Your task to perform on an android device: delete location history Image 0: 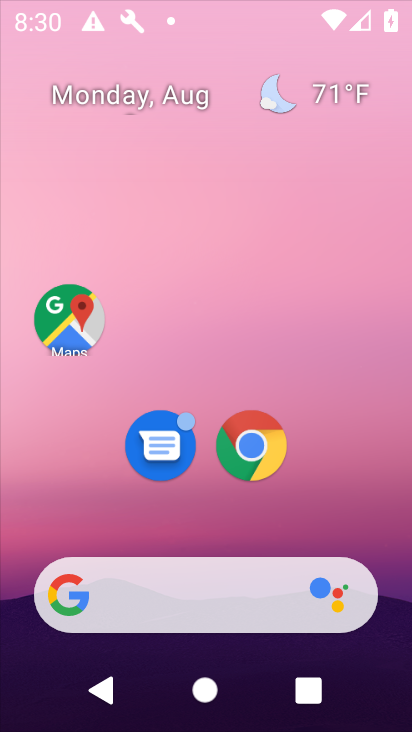
Step 0: drag from (208, 559) to (359, 29)
Your task to perform on an android device: delete location history Image 1: 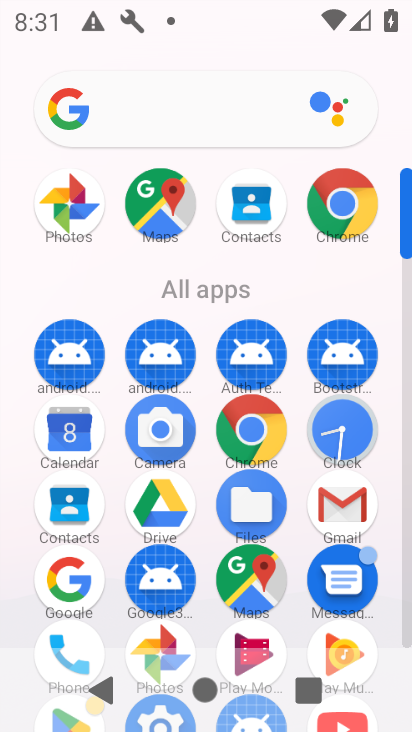
Step 1: click (271, 555)
Your task to perform on an android device: delete location history Image 2: 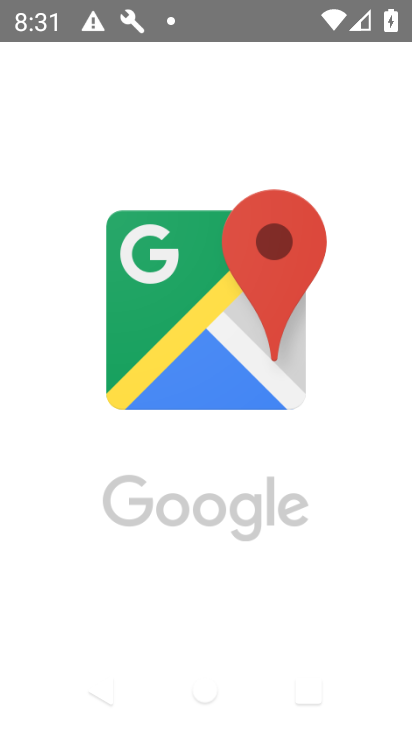
Step 2: press back button
Your task to perform on an android device: delete location history Image 3: 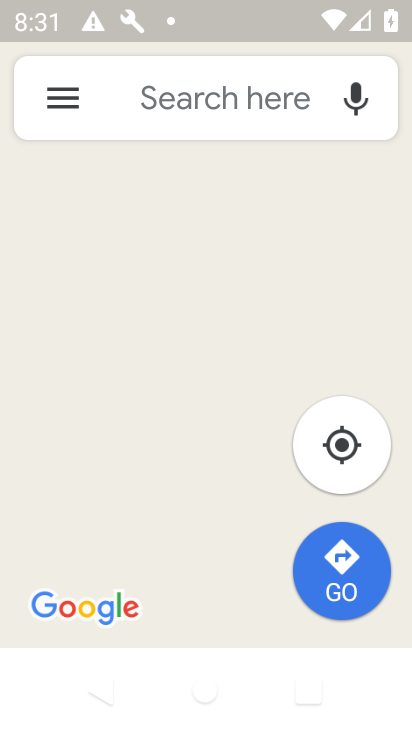
Step 3: press back button
Your task to perform on an android device: delete location history Image 4: 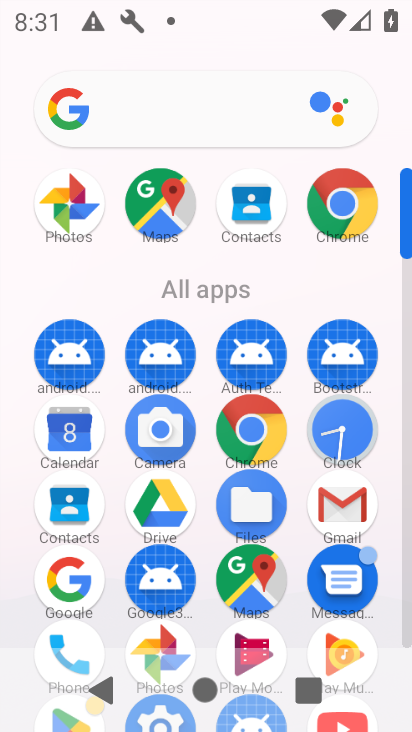
Step 4: press back button
Your task to perform on an android device: delete location history Image 5: 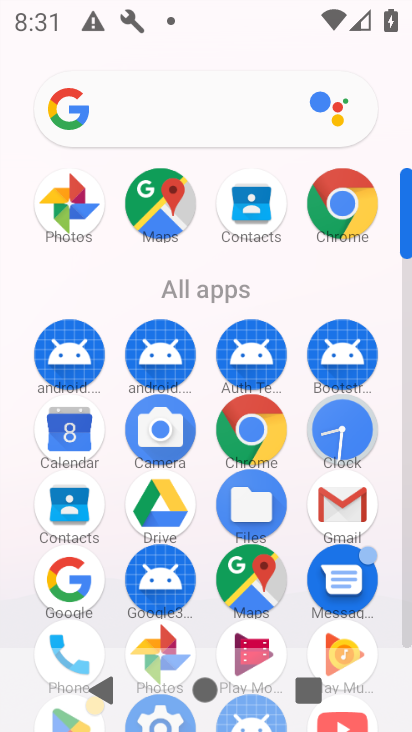
Step 5: click (56, 103)
Your task to perform on an android device: delete location history Image 6: 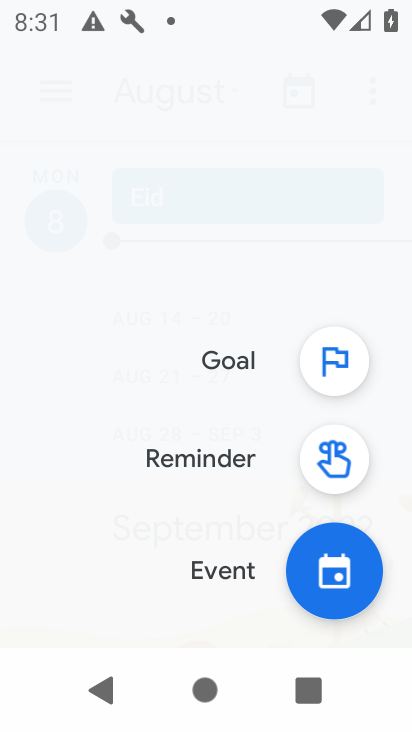
Step 6: drag from (219, 556) to (141, 225)
Your task to perform on an android device: delete location history Image 7: 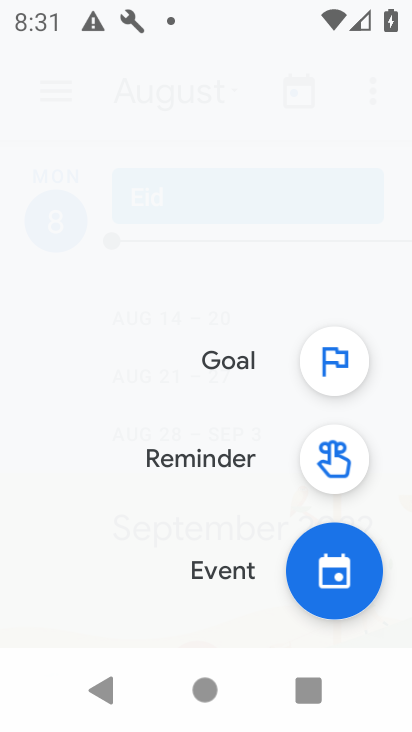
Step 7: press back button
Your task to perform on an android device: delete location history Image 8: 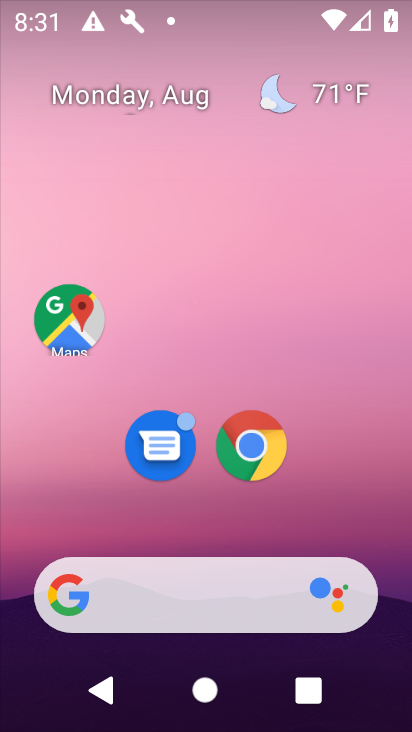
Step 8: drag from (263, 579) to (216, 103)
Your task to perform on an android device: delete location history Image 9: 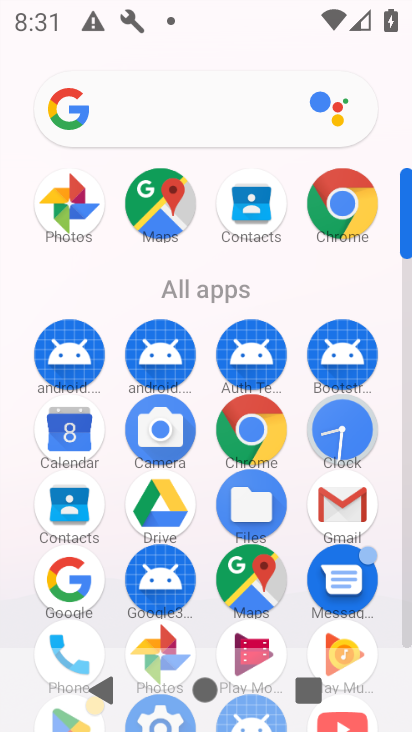
Step 9: drag from (296, 437) to (282, 253)
Your task to perform on an android device: delete location history Image 10: 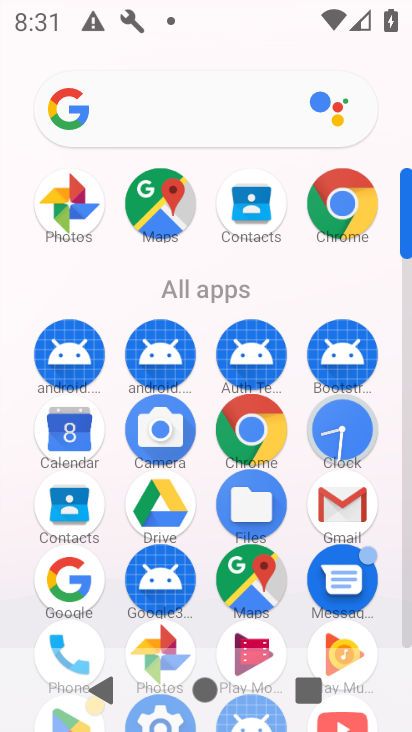
Step 10: drag from (314, 546) to (298, 214)
Your task to perform on an android device: delete location history Image 11: 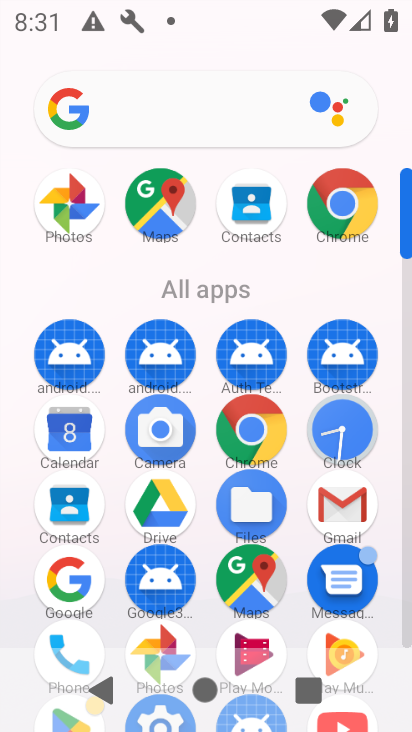
Step 11: drag from (298, 208) to (285, 154)
Your task to perform on an android device: delete location history Image 12: 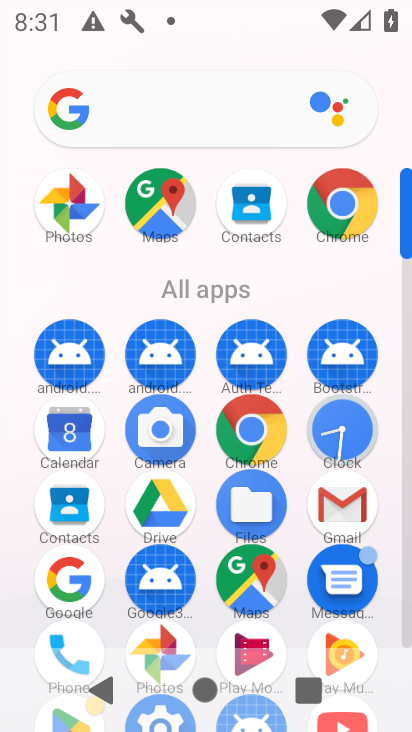
Step 12: drag from (219, 414) to (212, 165)
Your task to perform on an android device: delete location history Image 13: 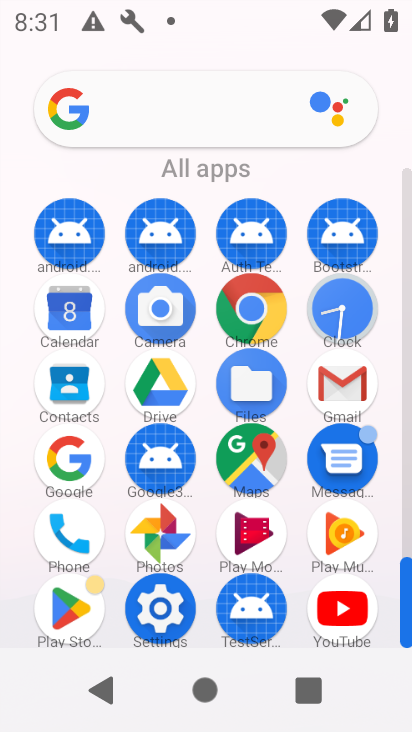
Step 13: click (158, 607)
Your task to perform on an android device: delete location history Image 14: 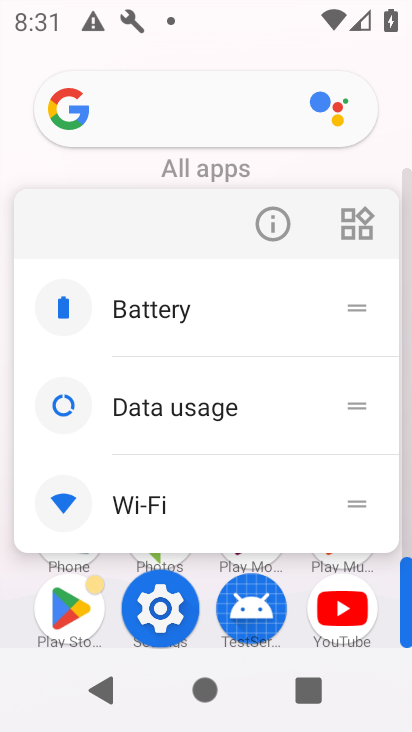
Step 14: click (159, 611)
Your task to perform on an android device: delete location history Image 15: 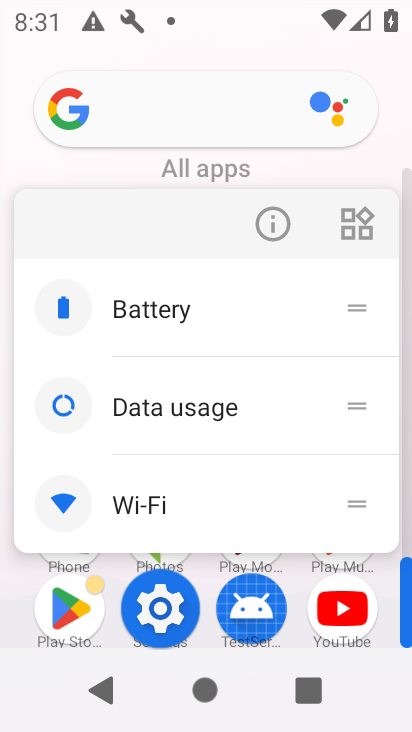
Step 15: click (159, 611)
Your task to perform on an android device: delete location history Image 16: 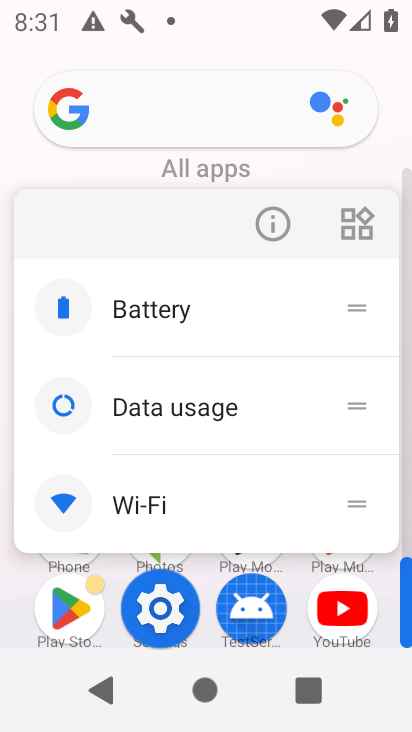
Step 16: click (166, 615)
Your task to perform on an android device: delete location history Image 17: 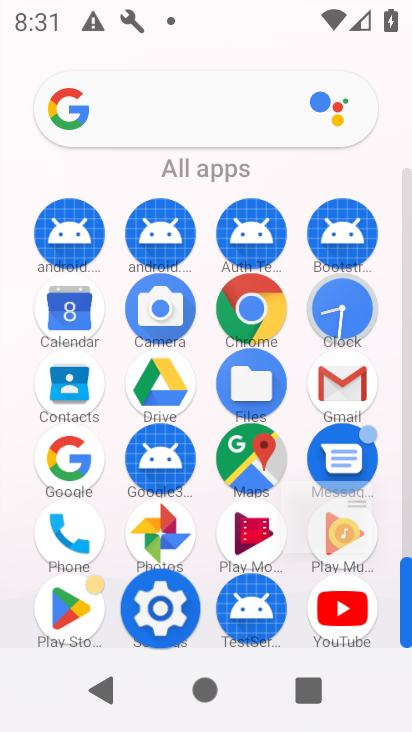
Step 17: click (166, 616)
Your task to perform on an android device: delete location history Image 18: 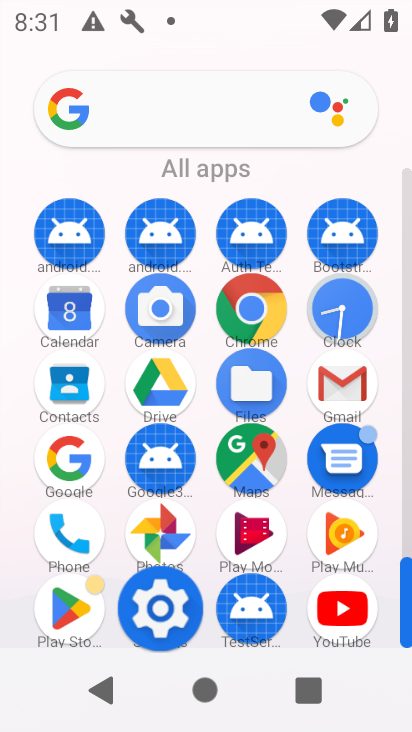
Step 18: click (168, 617)
Your task to perform on an android device: delete location history Image 19: 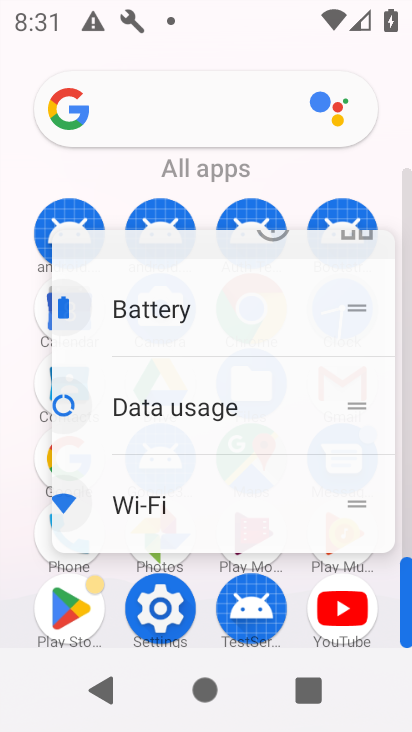
Step 19: click (171, 615)
Your task to perform on an android device: delete location history Image 20: 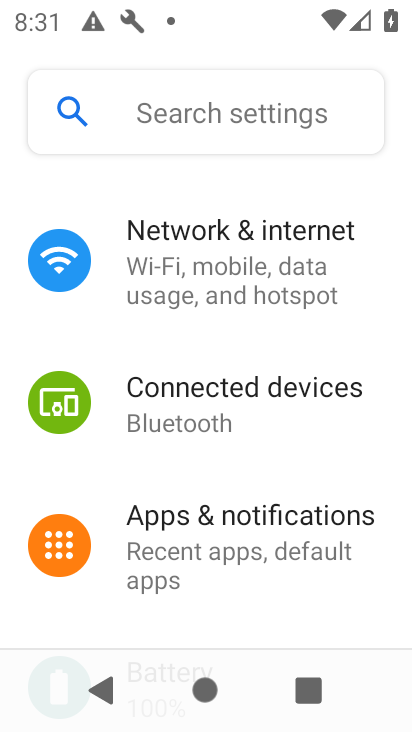
Step 20: click (171, 607)
Your task to perform on an android device: delete location history Image 21: 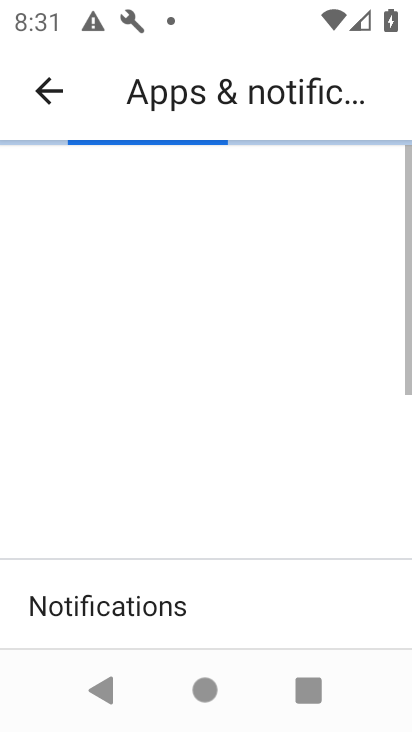
Step 21: drag from (174, 525) to (140, 275)
Your task to perform on an android device: delete location history Image 22: 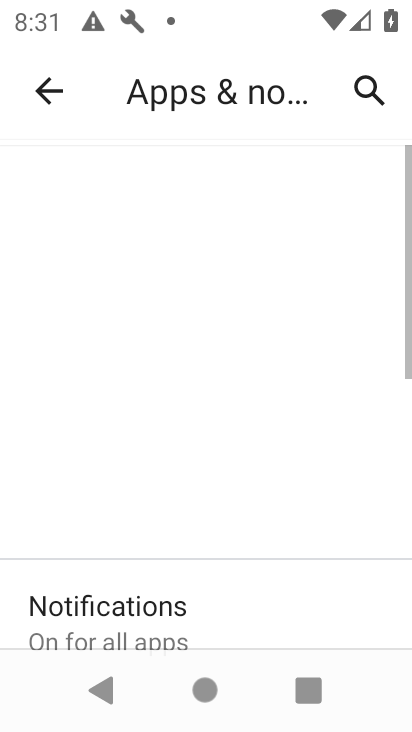
Step 22: click (51, 88)
Your task to perform on an android device: delete location history Image 23: 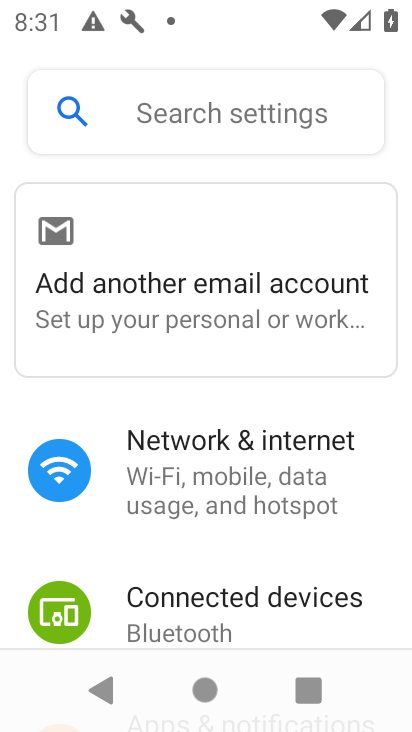
Step 23: drag from (234, 604) to (211, 409)
Your task to perform on an android device: delete location history Image 24: 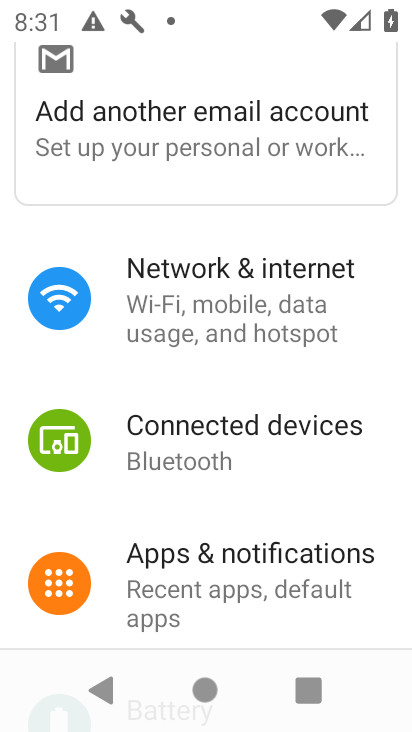
Step 24: click (225, 438)
Your task to perform on an android device: delete location history Image 25: 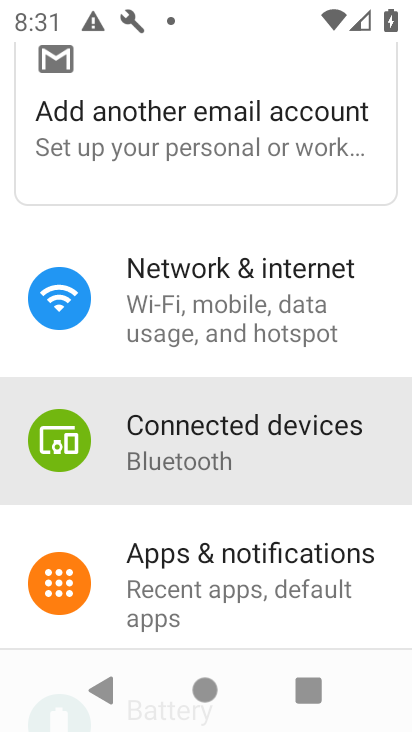
Step 25: drag from (265, 559) to (253, 260)
Your task to perform on an android device: delete location history Image 26: 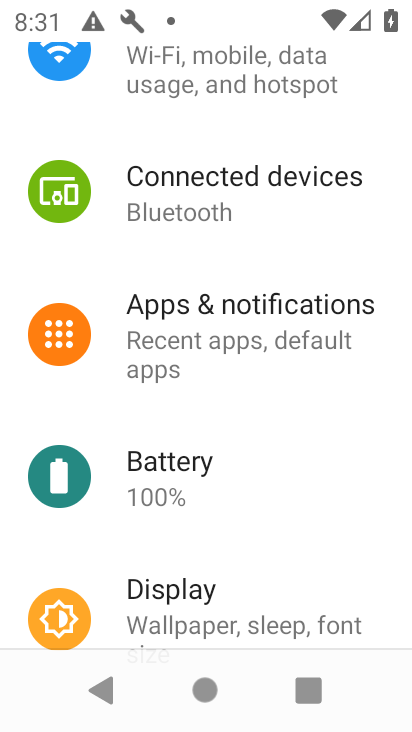
Step 26: click (169, 612)
Your task to perform on an android device: delete location history Image 27: 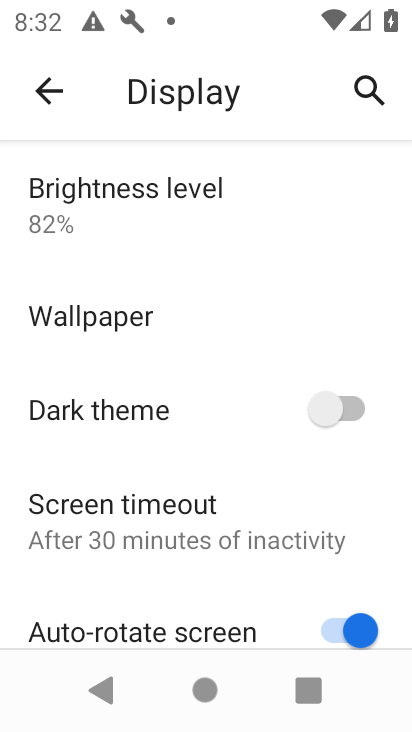
Step 27: drag from (161, 530) to (124, 172)
Your task to perform on an android device: delete location history Image 28: 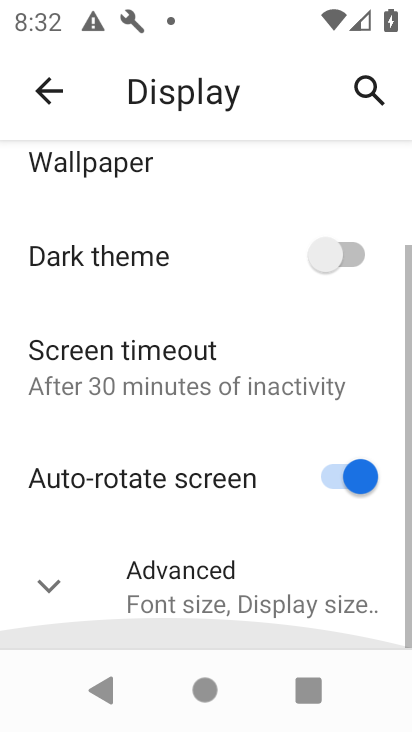
Step 28: drag from (190, 473) to (192, 291)
Your task to perform on an android device: delete location history Image 29: 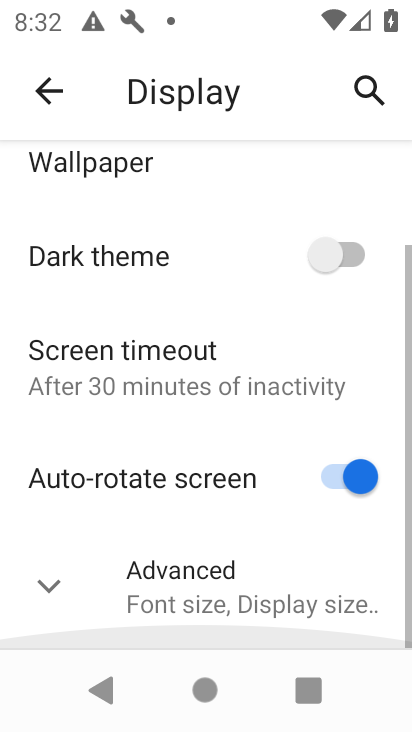
Step 29: drag from (221, 471) to (188, 224)
Your task to perform on an android device: delete location history Image 30: 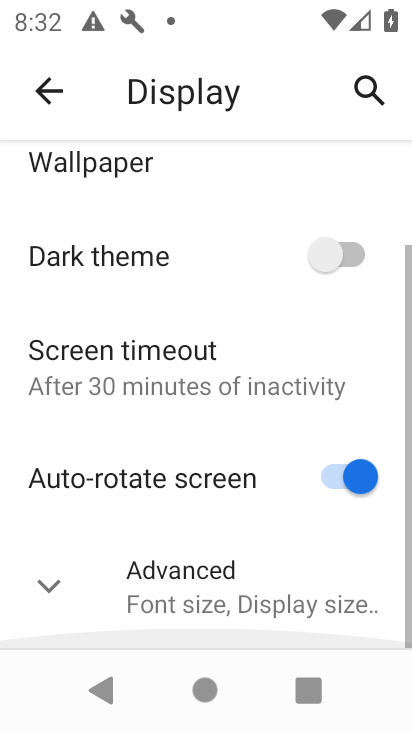
Step 30: click (199, 575)
Your task to perform on an android device: delete location history Image 31: 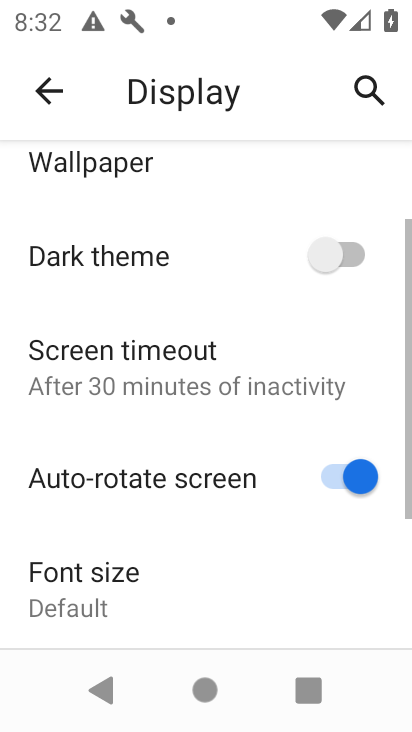
Step 31: drag from (197, 565) to (141, 249)
Your task to perform on an android device: delete location history Image 32: 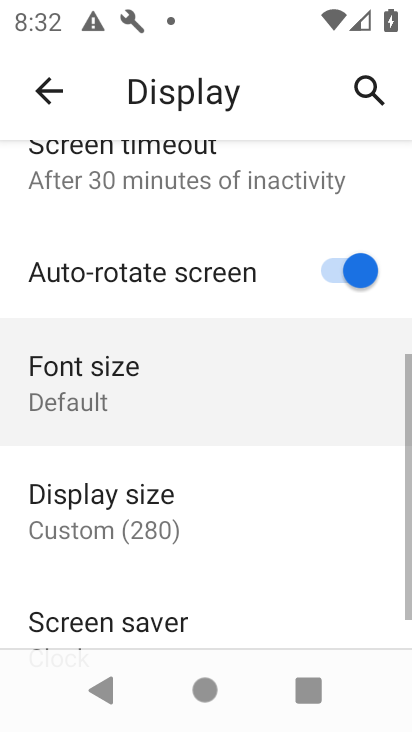
Step 32: drag from (197, 456) to (197, 315)
Your task to perform on an android device: delete location history Image 33: 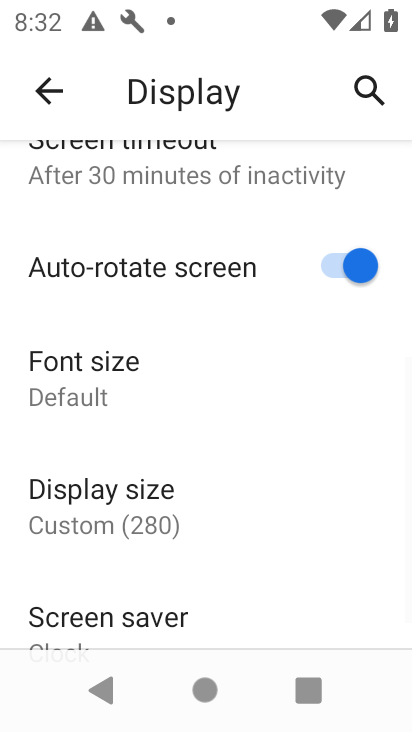
Step 33: click (79, 376)
Your task to perform on an android device: delete location history Image 34: 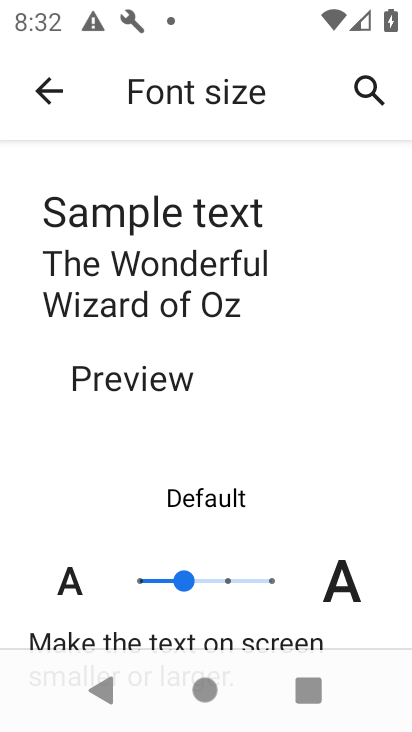
Step 34: click (134, 579)
Your task to perform on an android device: delete location history Image 35: 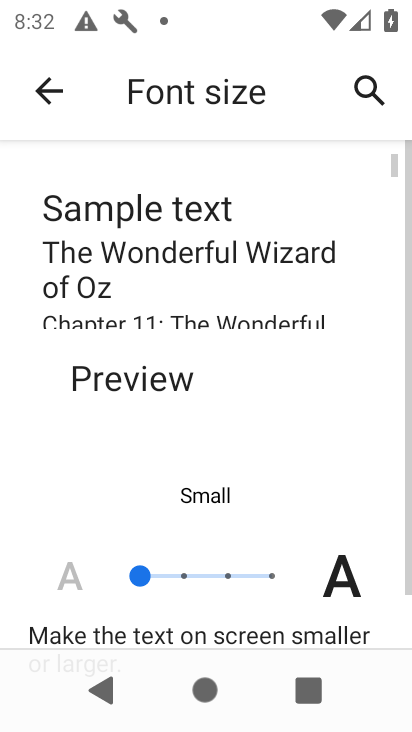
Step 35: click (48, 89)
Your task to perform on an android device: delete location history Image 36: 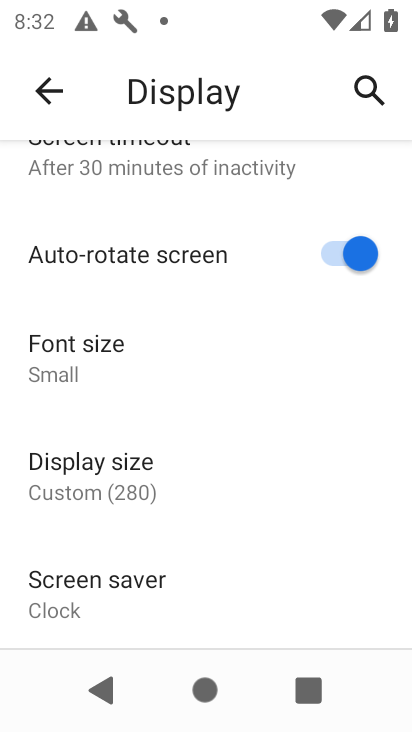
Step 36: click (44, 94)
Your task to perform on an android device: delete location history Image 37: 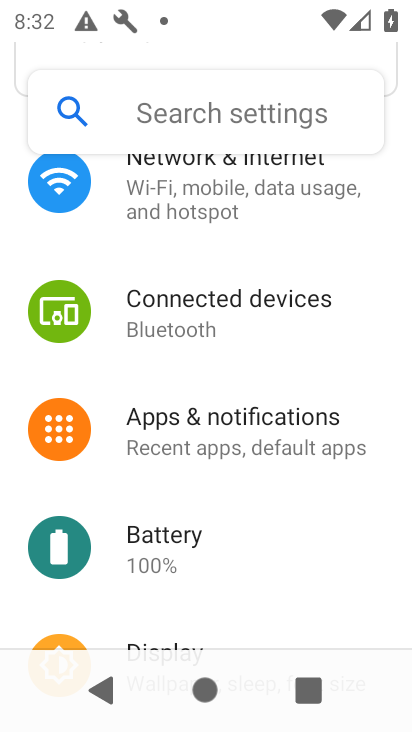
Step 37: drag from (232, 594) to (194, 205)
Your task to perform on an android device: delete location history Image 38: 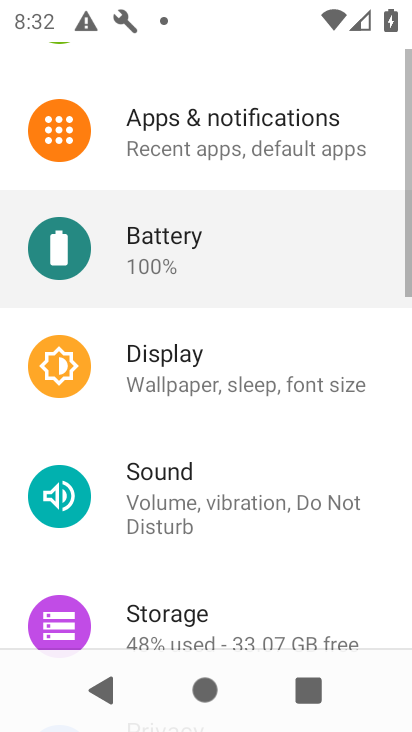
Step 38: drag from (243, 451) to (202, 270)
Your task to perform on an android device: delete location history Image 39: 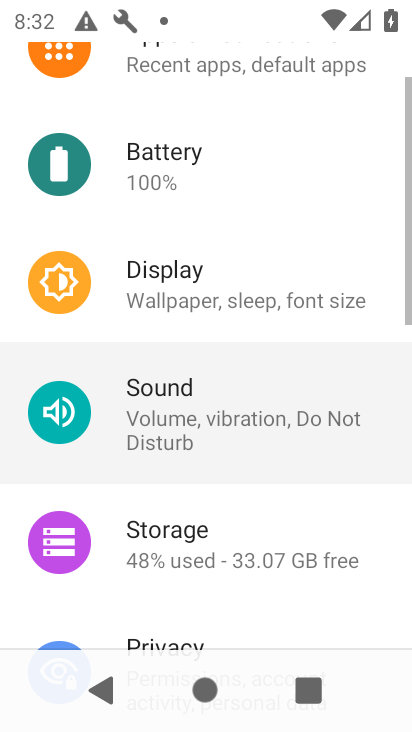
Step 39: drag from (261, 533) to (232, 196)
Your task to perform on an android device: delete location history Image 40: 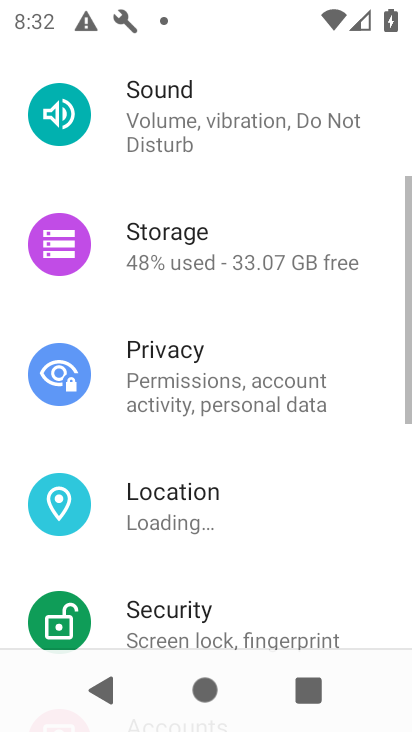
Step 40: drag from (262, 499) to (226, 122)
Your task to perform on an android device: delete location history Image 41: 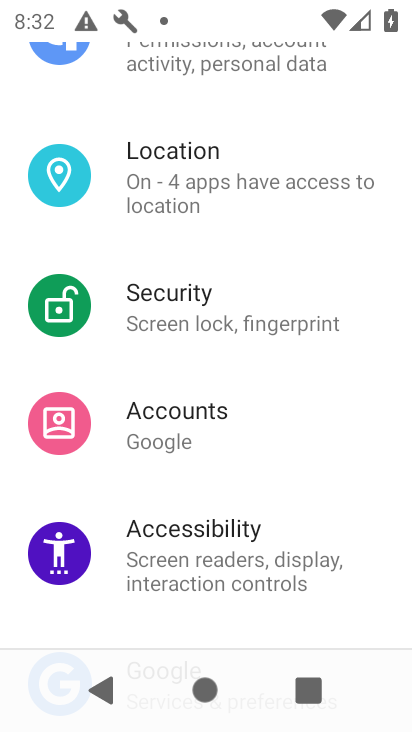
Step 41: click (177, 177)
Your task to perform on an android device: delete location history Image 42: 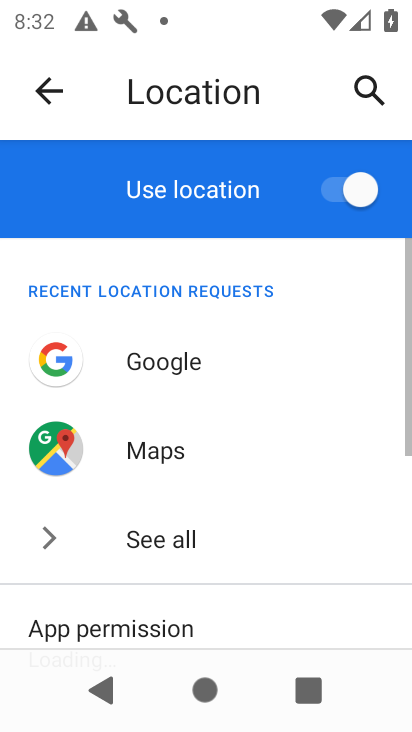
Step 42: drag from (201, 608) to (201, 242)
Your task to perform on an android device: delete location history Image 43: 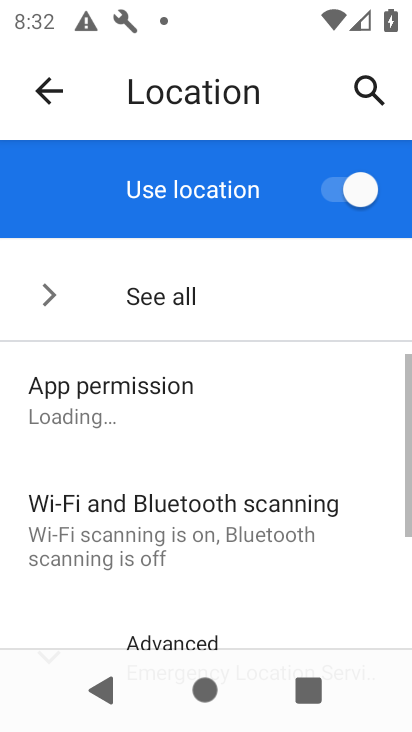
Step 43: drag from (284, 468) to (240, 125)
Your task to perform on an android device: delete location history Image 44: 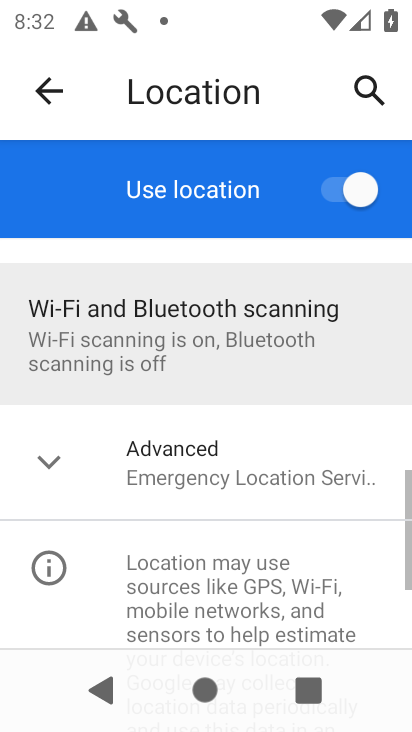
Step 44: click (240, 218)
Your task to perform on an android device: delete location history Image 45: 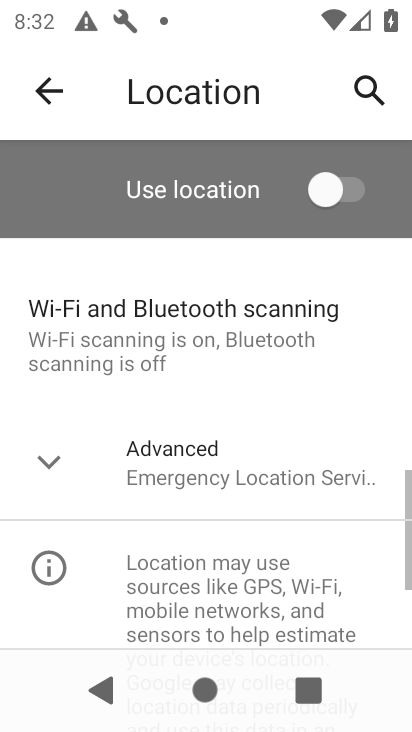
Step 45: click (192, 469)
Your task to perform on an android device: delete location history Image 46: 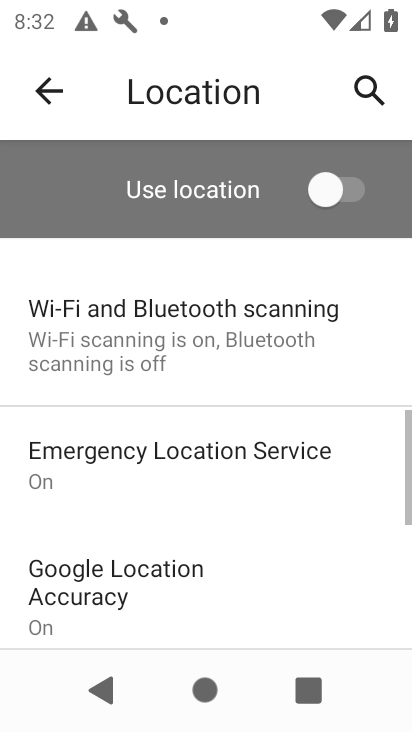
Step 46: click (332, 187)
Your task to perform on an android device: delete location history Image 47: 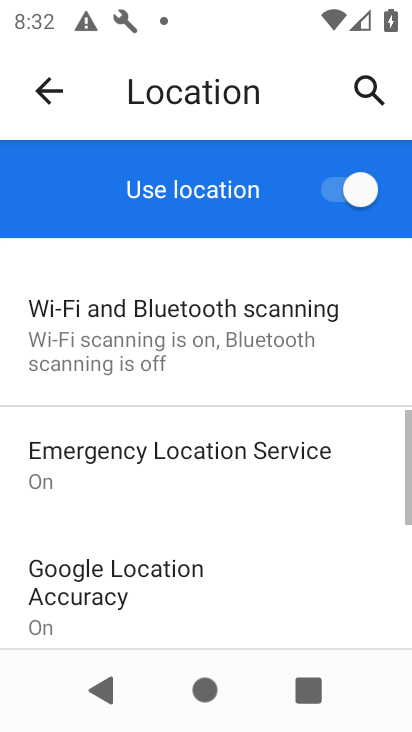
Step 47: drag from (147, 571) to (199, 333)
Your task to perform on an android device: delete location history Image 48: 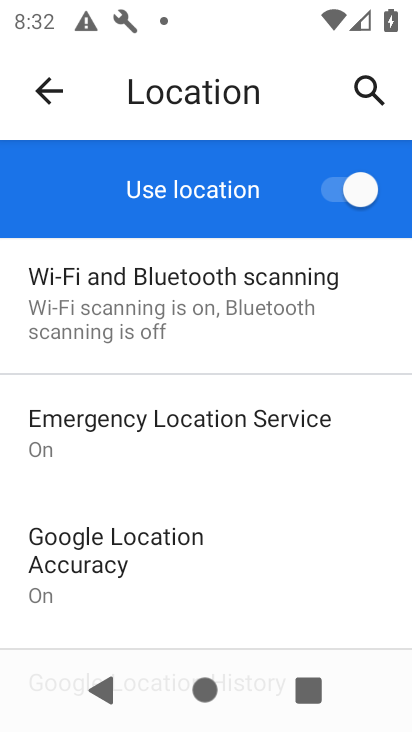
Step 48: drag from (203, 557) to (160, 258)
Your task to perform on an android device: delete location history Image 49: 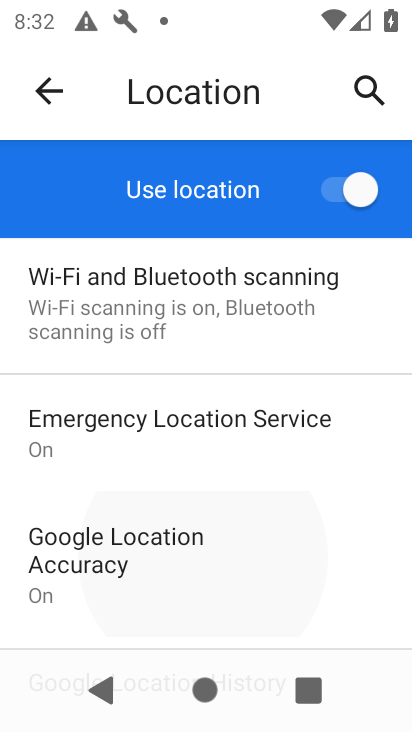
Step 49: drag from (226, 536) to (219, 376)
Your task to perform on an android device: delete location history Image 50: 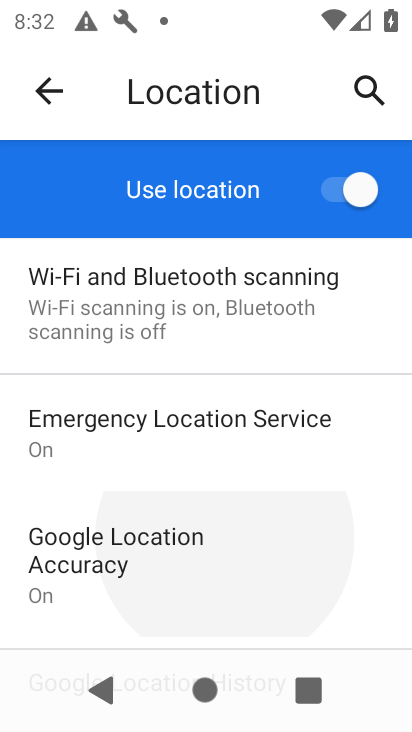
Step 50: drag from (223, 527) to (258, 307)
Your task to perform on an android device: delete location history Image 51: 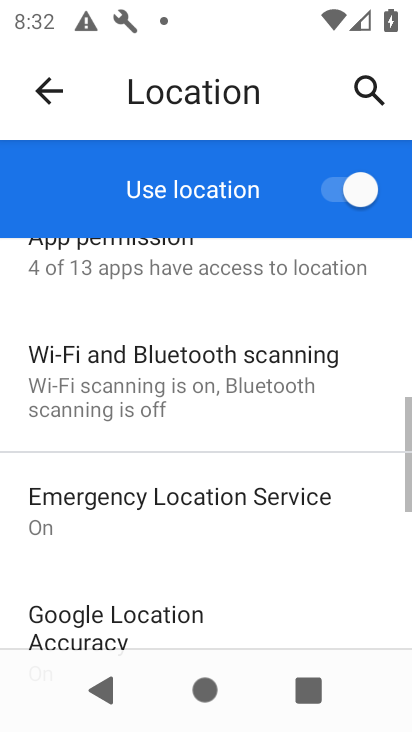
Step 51: drag from (175, 596) to (136, 233)
Your task to perform on an android device: delete location history Image 52: 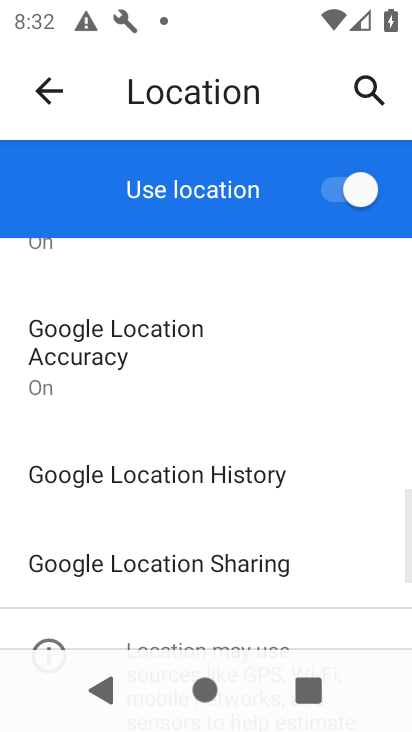
Step 52: drag from (241, 589) to (224, 245)
Your task to perform on an android device: delete location history Image 53: 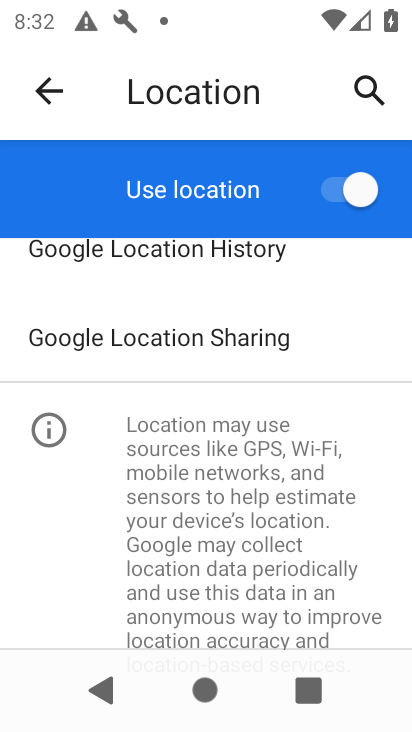
Step 53: click (219, 252)
Your task to perform on an android device: delete location history Image 54: 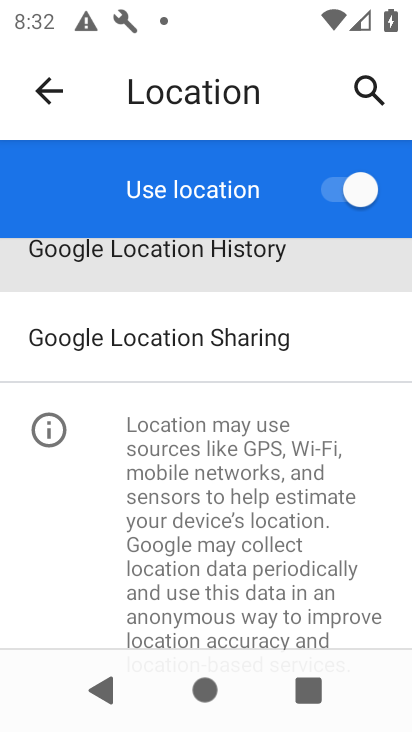
Step 54: click (219, 252)
Your task to perform on an android device: delete location history Image 55: 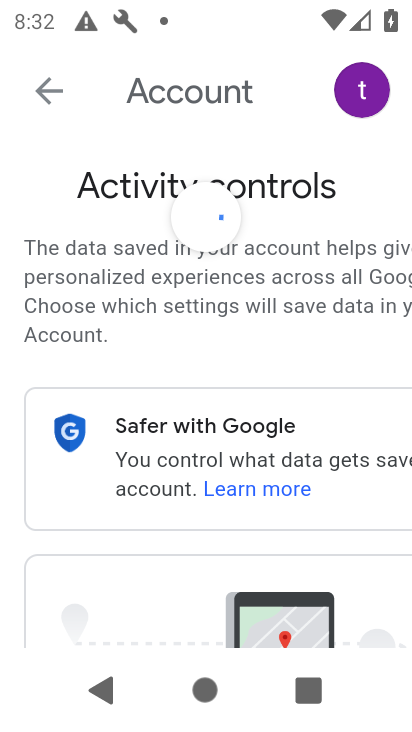
Step 55: drag from (249, 576) to (220, 187)
Your task to perform on an android device: delete location history Image 56: 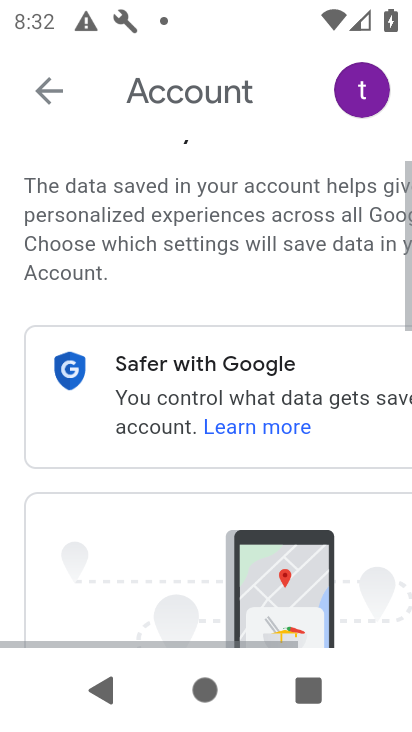
Step 56: drag from (294, 482) to (262, 173)
Your task to perform on an android device: delete location history Image 57: 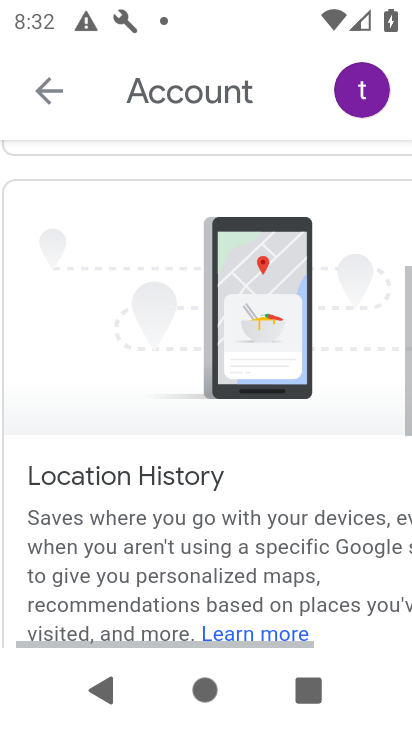
Step 57: drag from (286, 464) to (242, 184)
Your task to perform on an android device: delete location history Image 58: 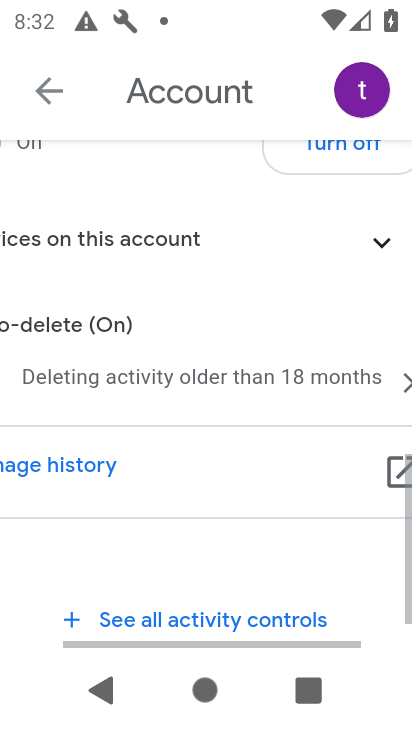
Step 58: drag from (238, 441) to (213, 297)
Your task to perform on an android device: delete location history Image 59: 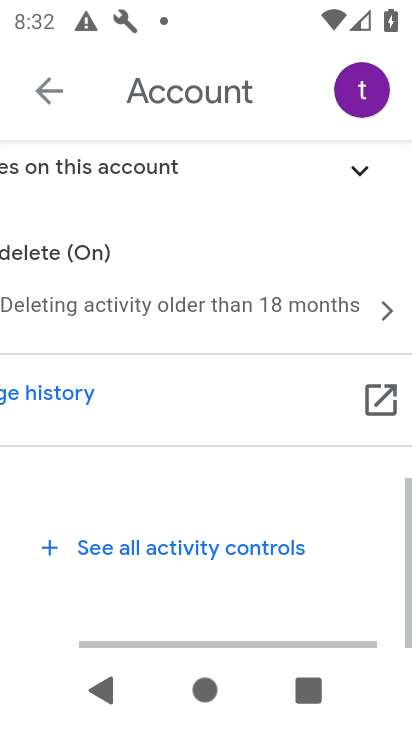
Step 59: drag from (240, 235) to (240, 434)
Your task to perform on an android device: delete location history Image 60: 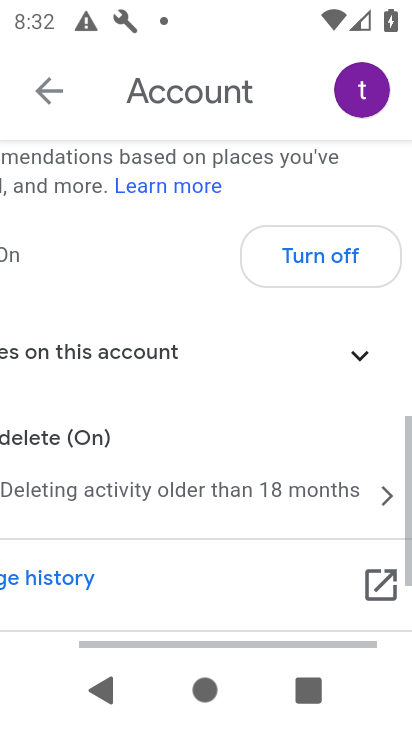
Step 60: drag from (163, 243) to (195, 480)
Your task to perform on an android device: delete location history Image 61: 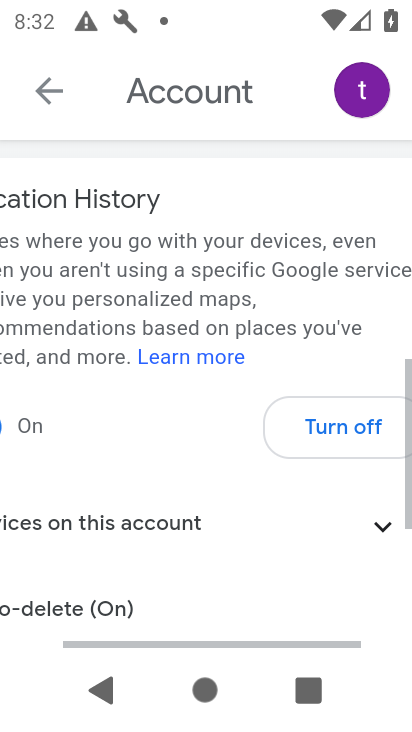
Step 61: drag from (165, 344) to (192, 448)
Your task to perform on an android device: delete location history Image 62: 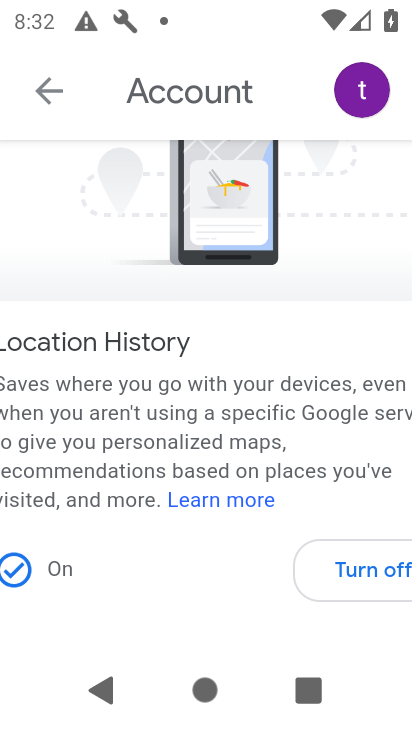
Step 62: drag from (201, 607) to (228, 420)
Your task to perform on an android device: delete location history Image 63: 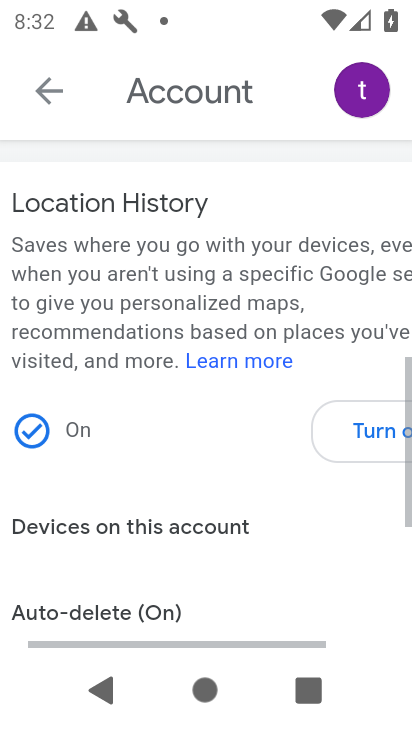
Step 63: drag from (246, 627) to (231, 344)
Your task to perform on an android device: delete location history Image 64: 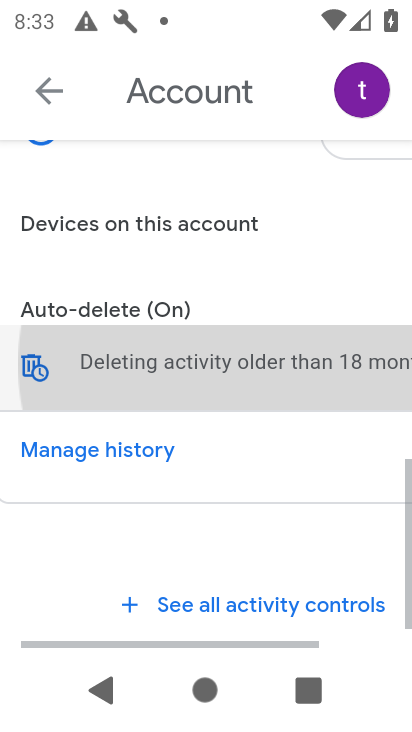
Step 64: drag from (228, 525) to (233, 267)
Your task to perform on an android device: delete location history Image 65: 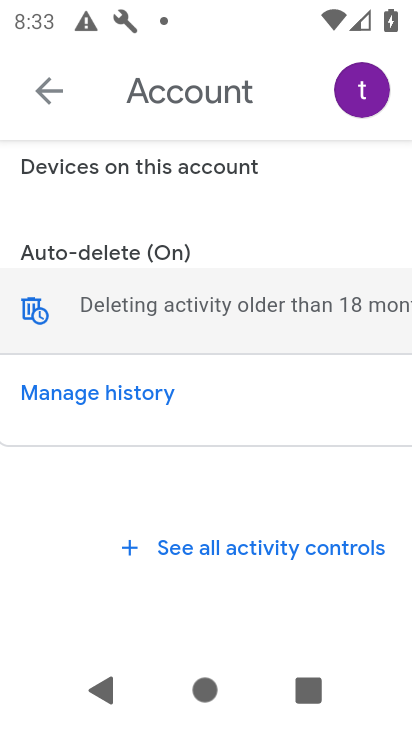
Step 65: click (39, 308)
Your task to perform on an android device: delete location history Image 66: 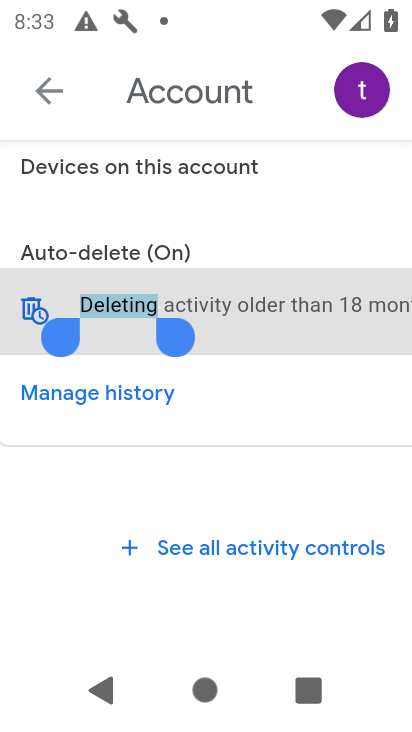
Step 66: click (23, 304)
Your task to perform on an android device: delete location history Image 67: 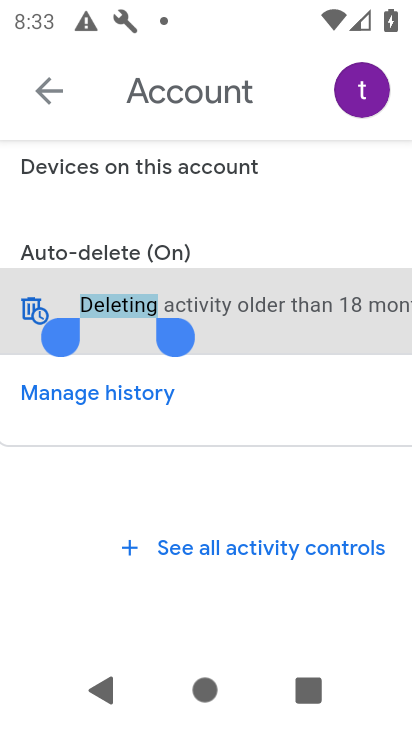
Step 67: click (25, 306)
Your task to perform on an android device: delete location history Image 68: 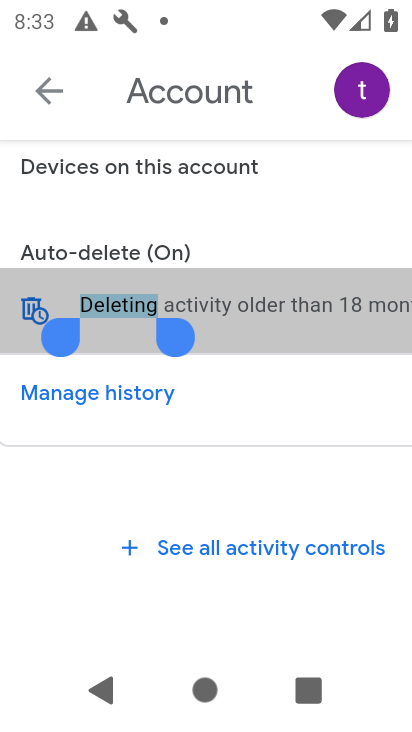
Step 68: click (26, 307)
Your task to perform on an android device: delete location history Image 69: 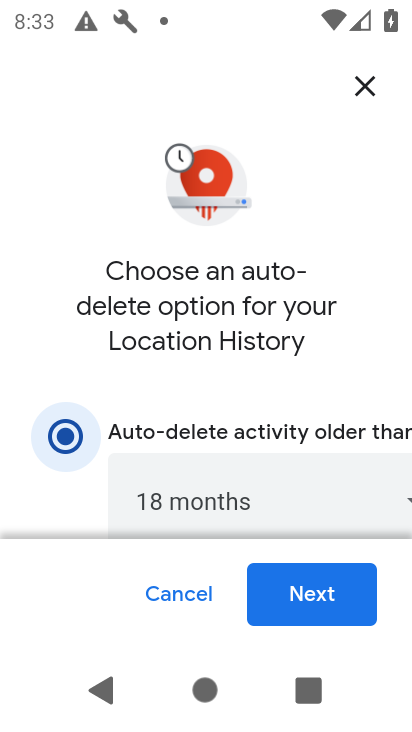
Step 69: click (317, 596)
Your task to perform on an android device: delete location history Image 70: 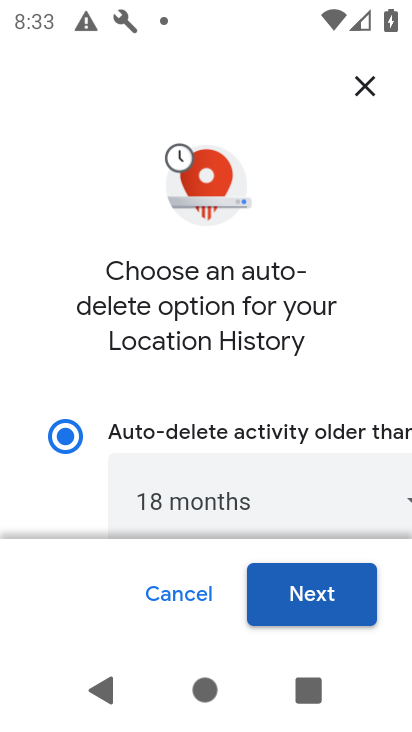
Step 70: click (400, 499)
Your task to perform on an android device: delete location history Image 71: 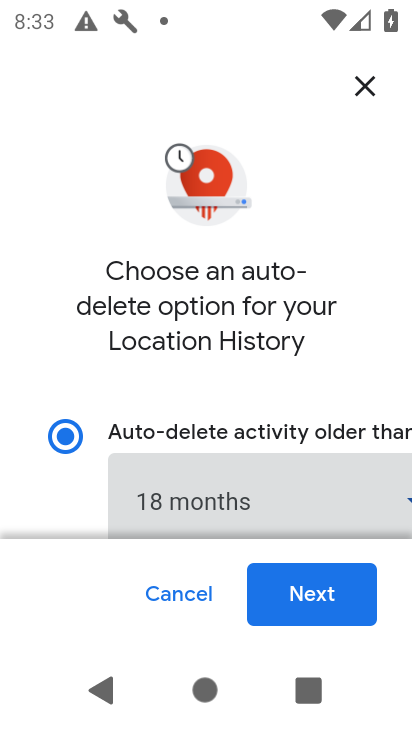
Step 71: click (400, 499)
Your task to perform on an android device: delete location history Image 72: 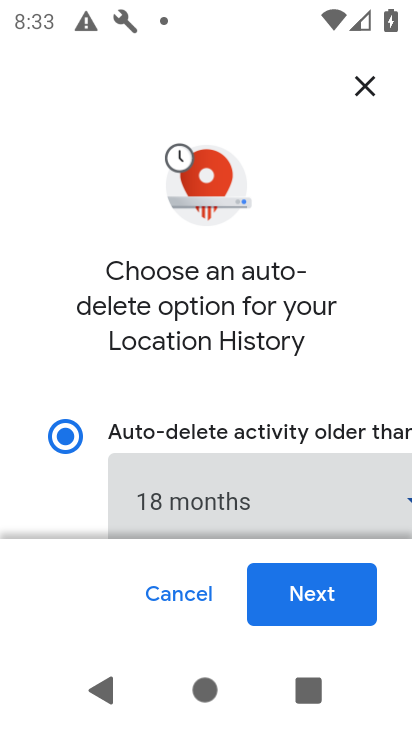
Step 72: click (303, 605)
Your task to perform on an android device: delete location history Image 73: 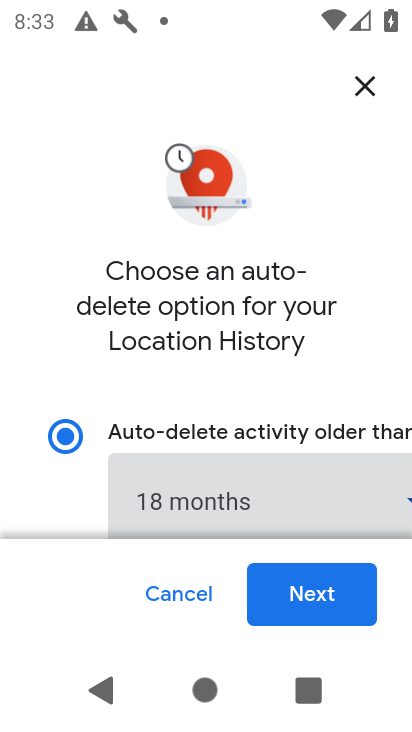
Step 73: click (304, 606)
Your task to perform on an android device: delete location history Image 74: 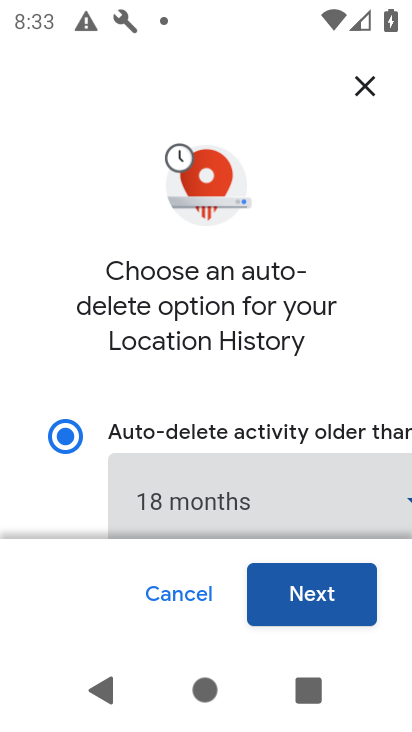
Step 74: click (328, 597)
Your task to perform on an android device: delete location history Image 75: 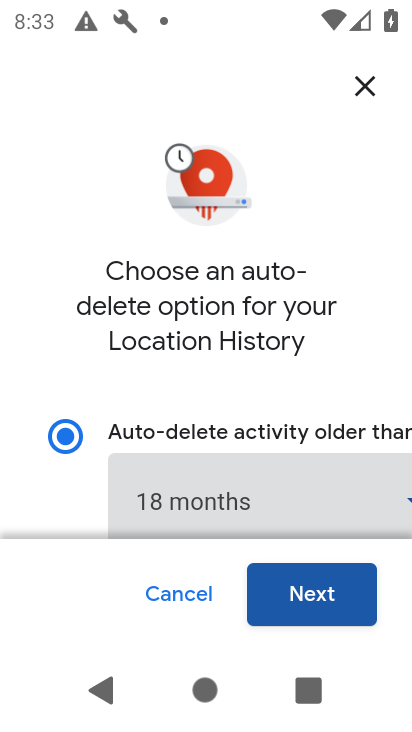
Step 75: click (328, 597)
Your task to perform on an android device: delete location history Image 76: 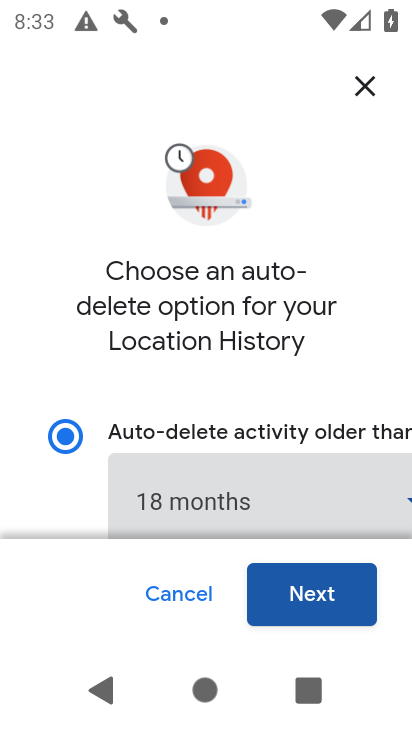
Step 76: click (328, 599)
Your task to perform on an android device: delete location history Image 77: 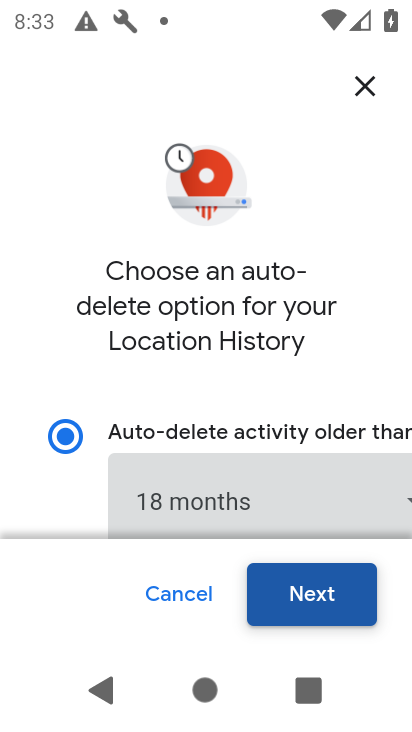
Step 77: click (329, 600)
Your task to perform on an android device: delete location history Image 78: 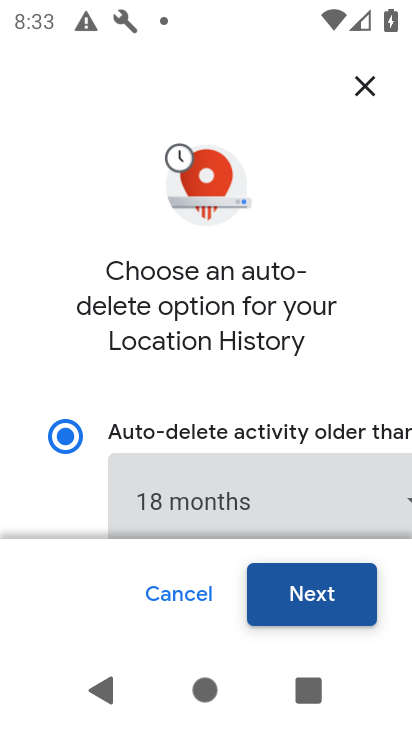
Step 78: click (332, 600)
Your task to perform on an android device: delete location history Image 79: 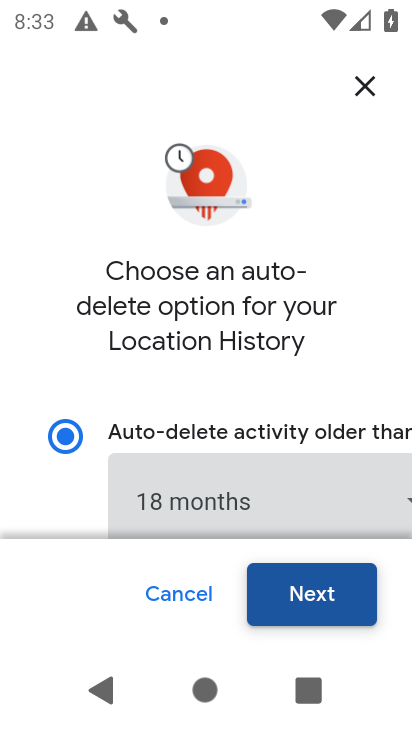
Step 79: task complete